Your task to perform on an android device: change alarm snooze length Image 0: 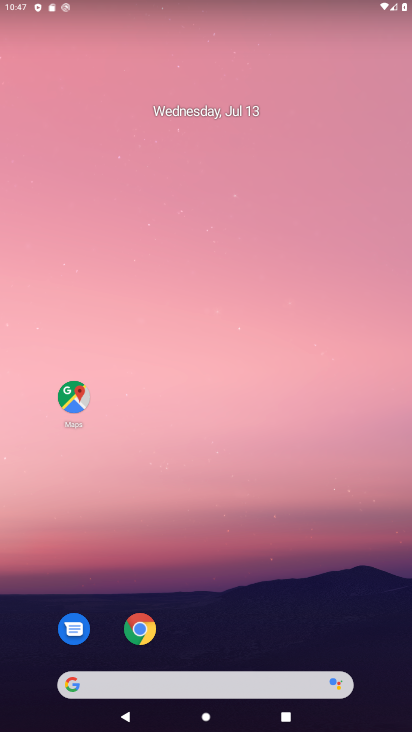
Step 0: drag from (239, 726) to (229, 180)
Your task to perform on an android device: change alarm snooze length Image 1: 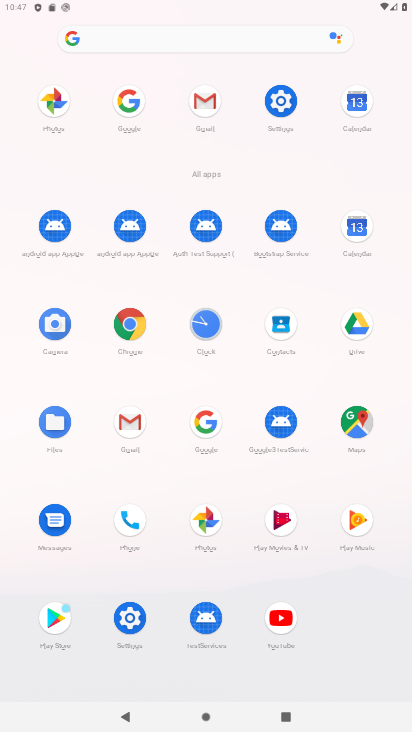
Step 1: click (205, 327)
Your task to perform on an android device: change alarm snooze length Image 2: 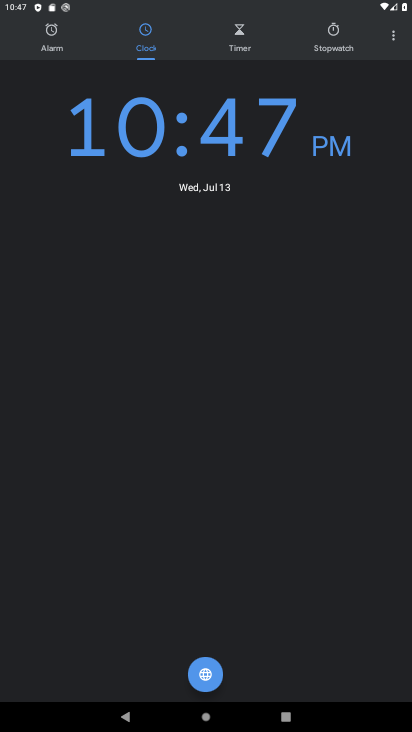
Step 2: click (395, 42)
Your task to perform on an android device: change alarm snooze length Image 3: 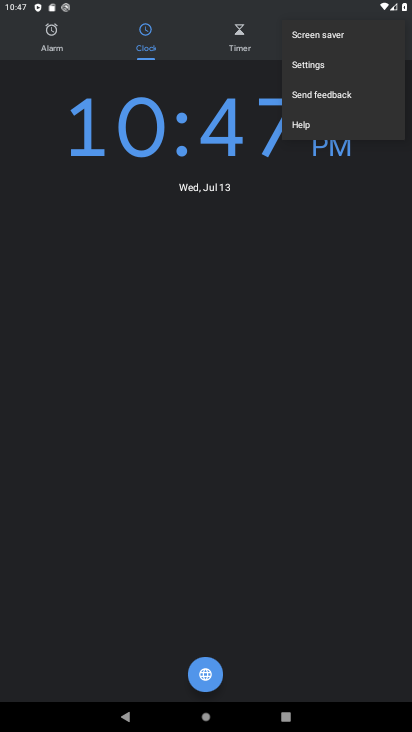
Step 3: click (321, 63)
Your task to perform on an android device: change alarm snooze length Image 4: 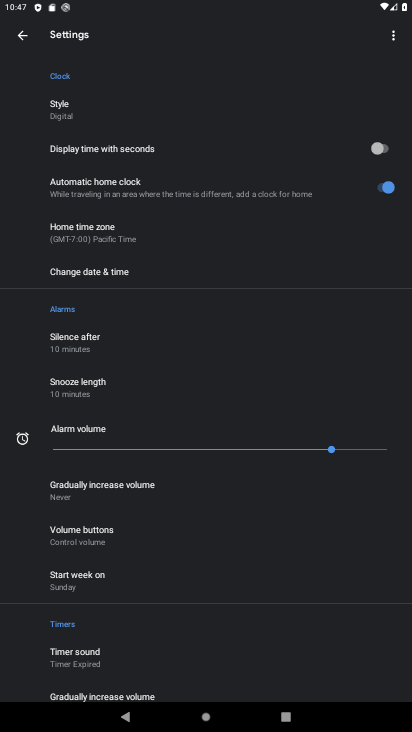
Step 4: drag from (145, 645) to (142, 469)
Your task to perform on an android device: change alarm snooze length Image 5: 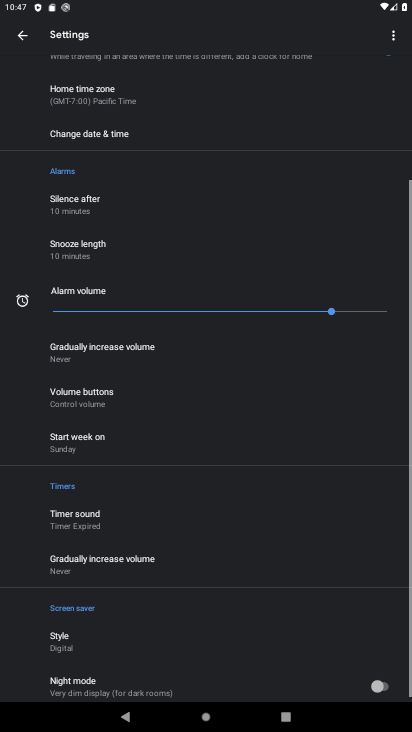
Step 5: click (142, 421)
Your task to perform on an android device: change alarm snooze length Image 6: 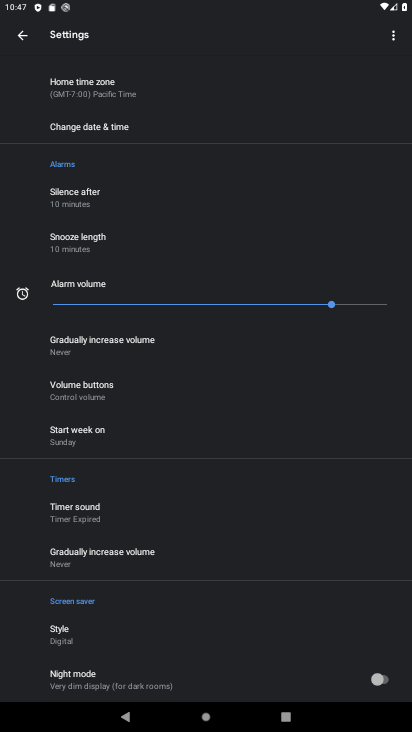
Step 6: click (74, 237)
Your task to perform on an android device: change alarm snooze length Image 7: 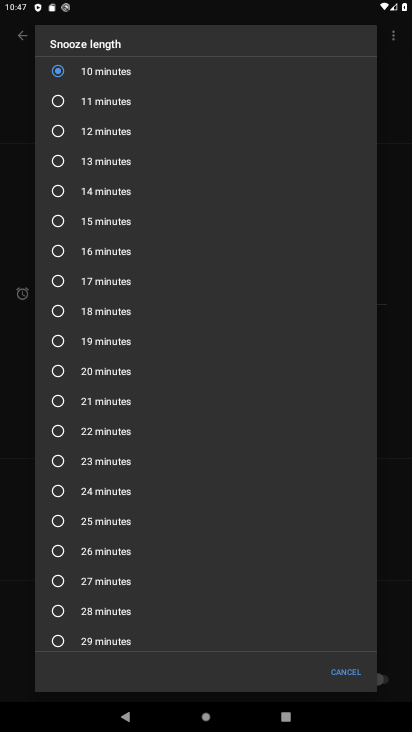
Step 7: click (61, 465)
Your task to perform on an android device: change alarm snooze length Image 8: 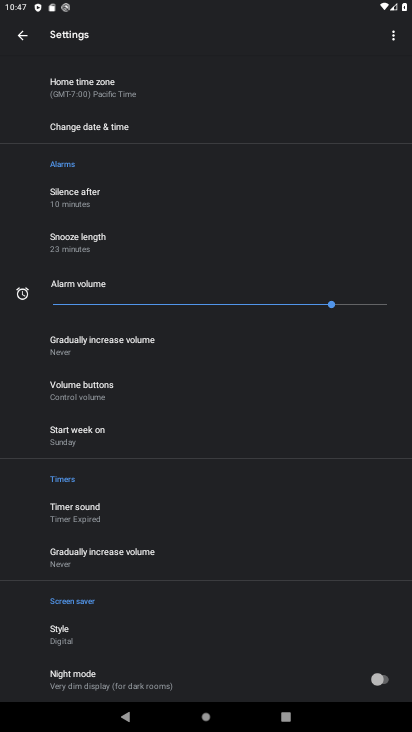
Step 8: task complete